Your task to perform on an android device: Go to eBay Image 0: 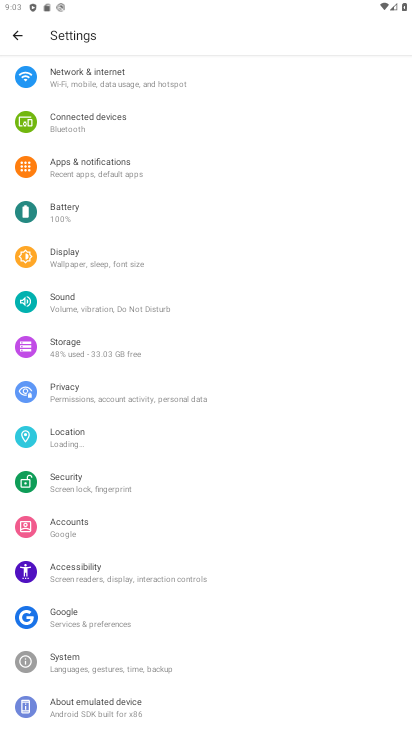
Step 0: press home button
Your task to perform on an android device: Go to eBay Image 1: 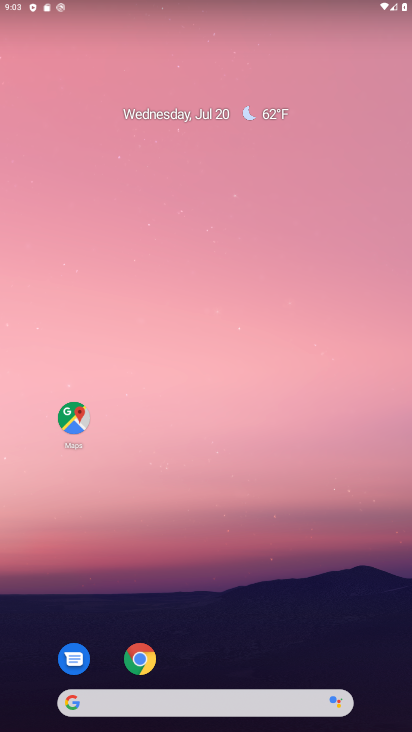
Step 1: click (153, 658)
Your task to perform on an android device: Go to eBay Image 2: 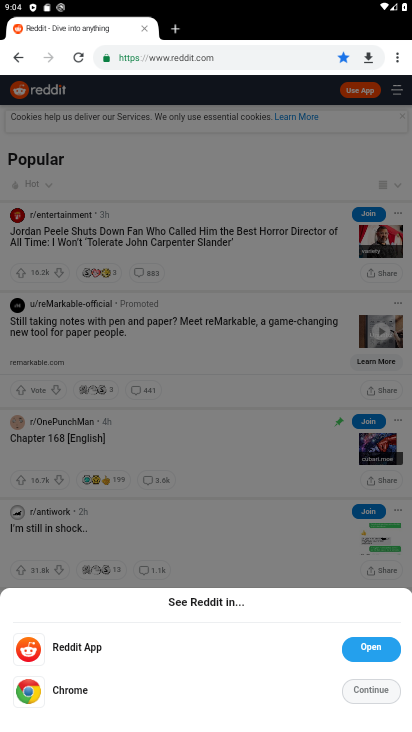
Step 2: click (172, 24)
Your task to perform on an android device: Go to eBay Image 3: 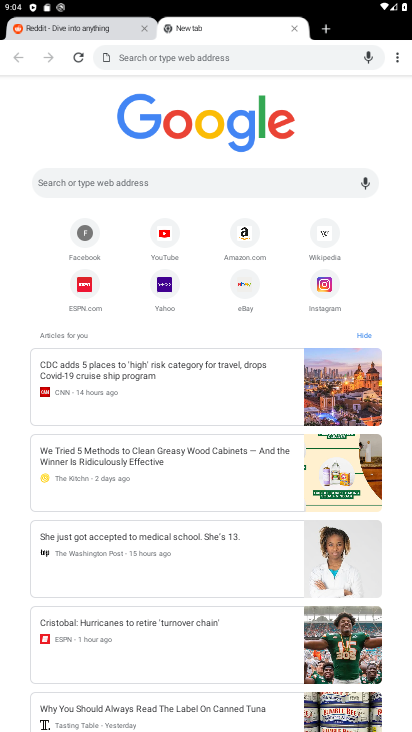
Step 3: click (175, 29)
Your task to perform on an android device: Go to eBay Image 4: 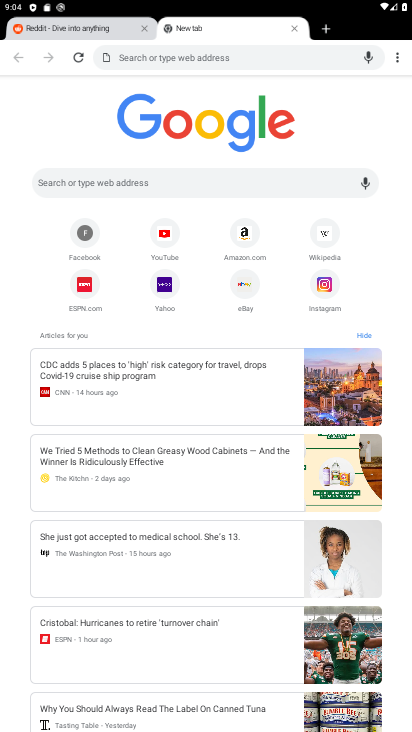
Step 4: click (251, 285)
Your task to perform on an android device: Go to eBay Image 5: 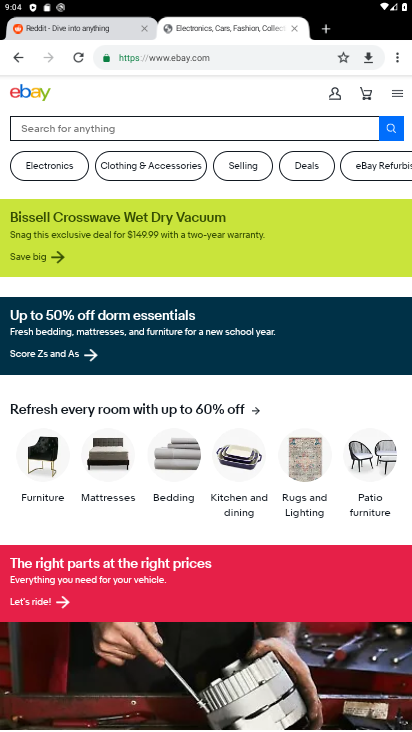
Step 5: task complete